Your task to perform on an android device: manage bookmarks in the chrome app Image 0: 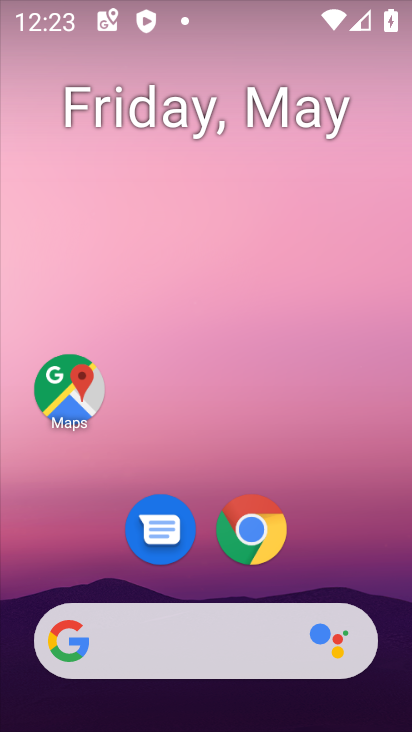
Step 0: click (253, 520)
Your task to perform on an android device: manage bookmarks in the chrome app Image 1: 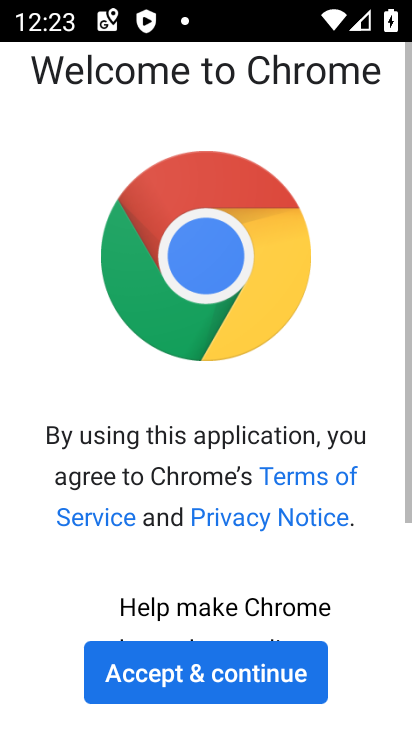
Step 1: click (229, 666)
Your task to perform on an android device: manage bookmarks in the chrome app Image 2: 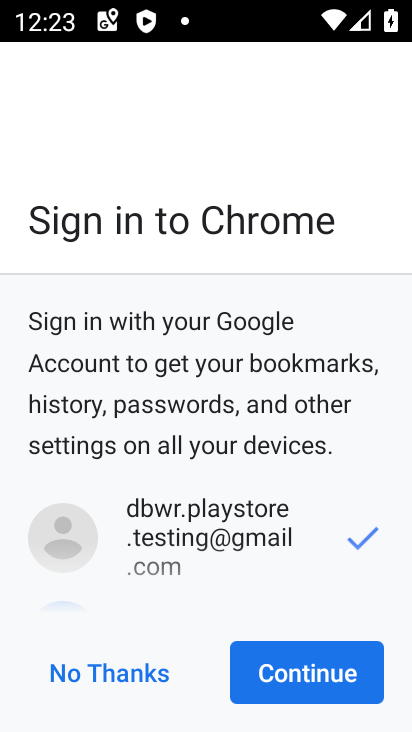
Step 2: click (308, 677)
Your task to perform on an android device: manage bookmarks in the chrome app Image 3: 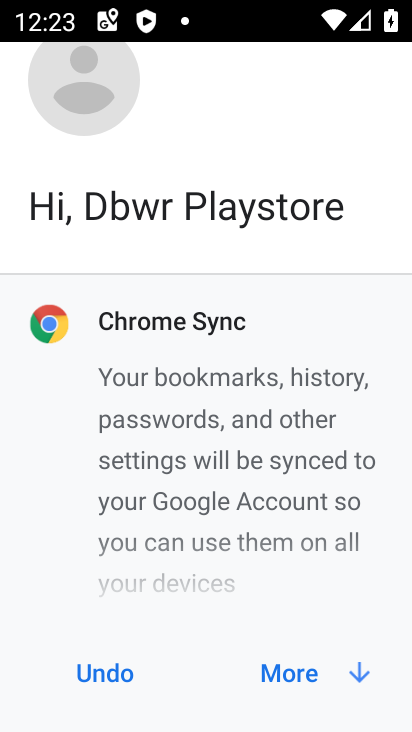
Step 3: click (309, 681)
Your task to perform on an android device: manage bookmarks in the chrome app Image 4: 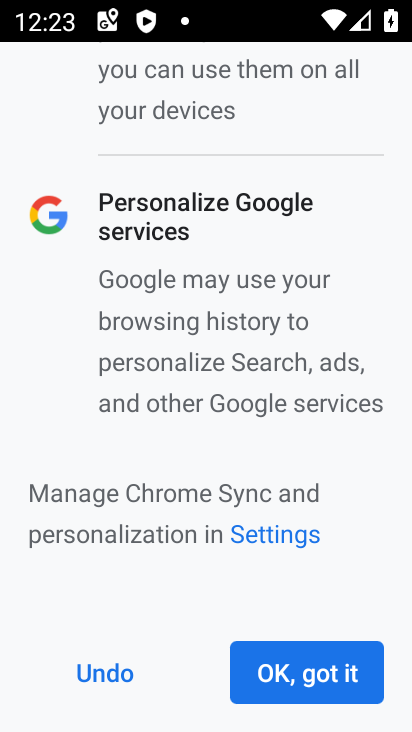
Step 4: click (306, 680)
Your task to perform on an android device: manage bookmarks in the chrome app Image 5: 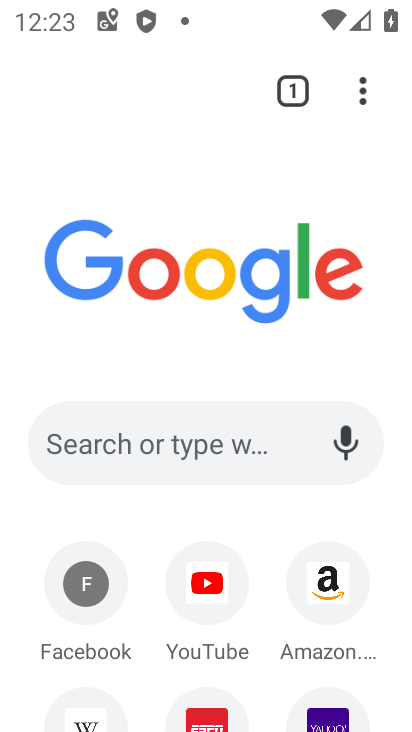
Step 5: click (363, 92)
Your task to perform on an android device: manage bookmarks in the chrome app Image 6: 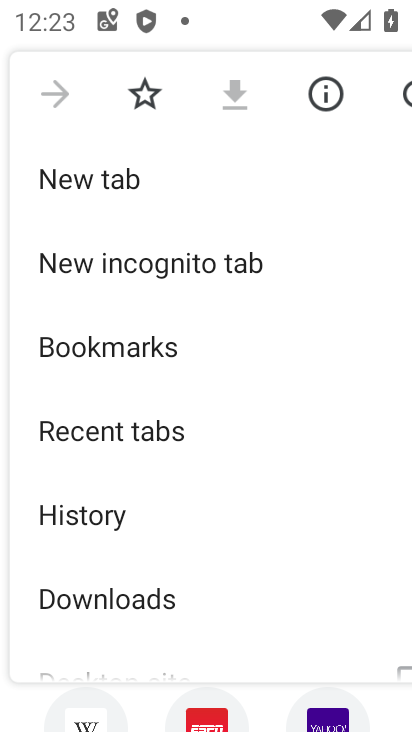
Step 6: click (111, 341)
Your task to perform on an android device: manage bookmarks in the chrome app Image 7: 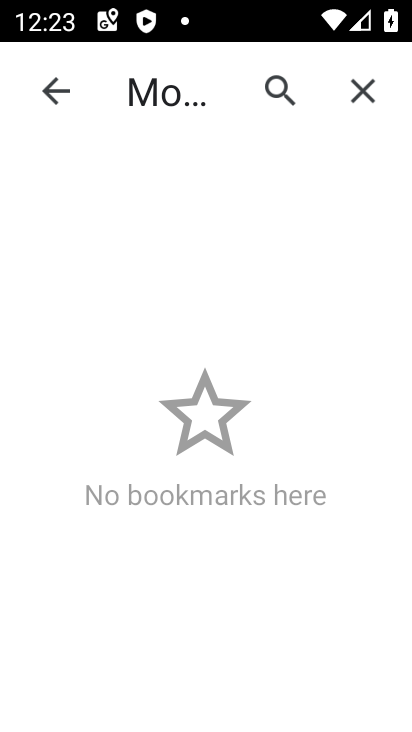
Step 7: task complete